Your task to perform on an android device: check battery use Image 0: 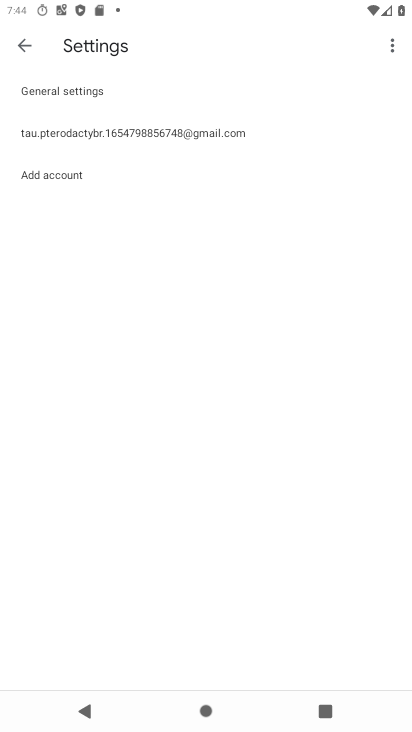
Step 0: press home button
Your task to perform on an android device: check battery use Image 1: 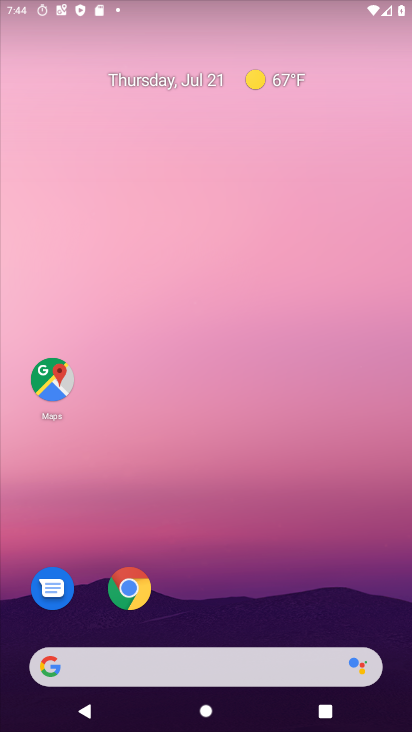
Step 1: drag from (180, 653) to (196, 186)
Your task to perform on an android device: check battery use Image 2: 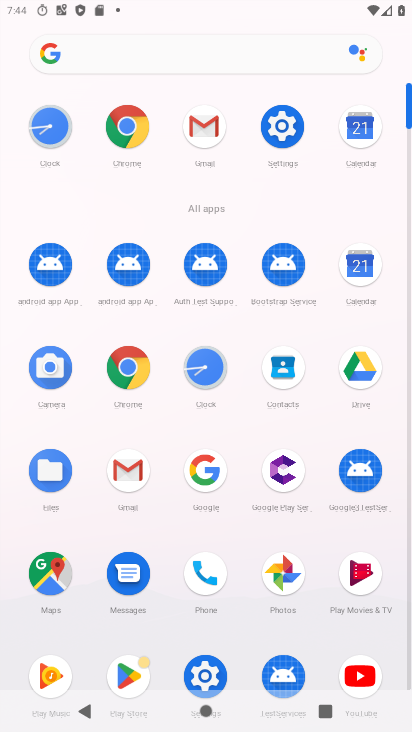
Step 2: click (279, 132)
Your task to perform on an android device: check battery use Image 3: 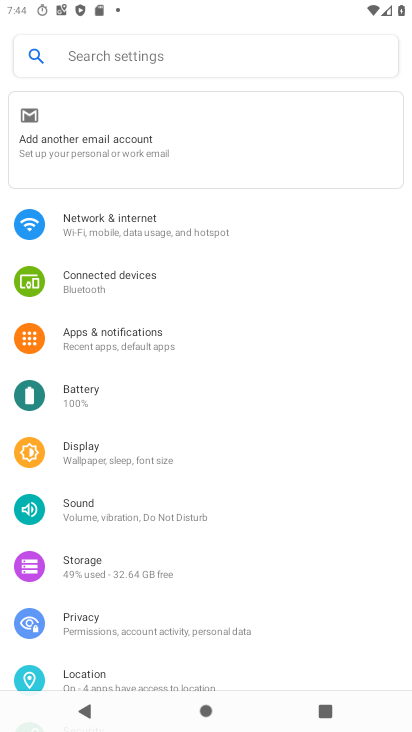
Step 3: click (108, 413)
Your task to perform on an android device: check battery use Image 4: 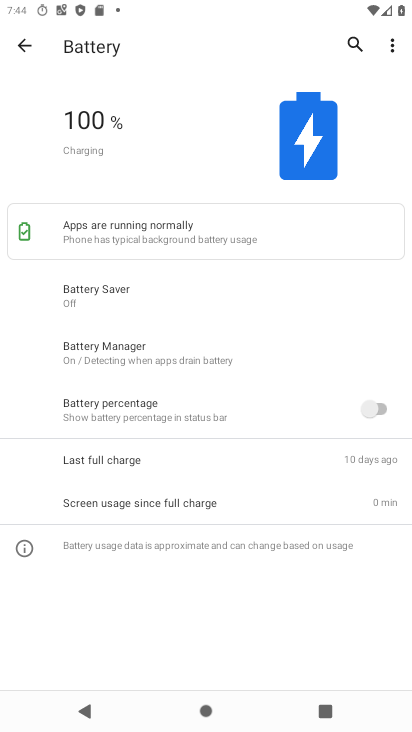
Step 4: click (391, 43)
Your task to perform on an android device: check battery use Image 5: 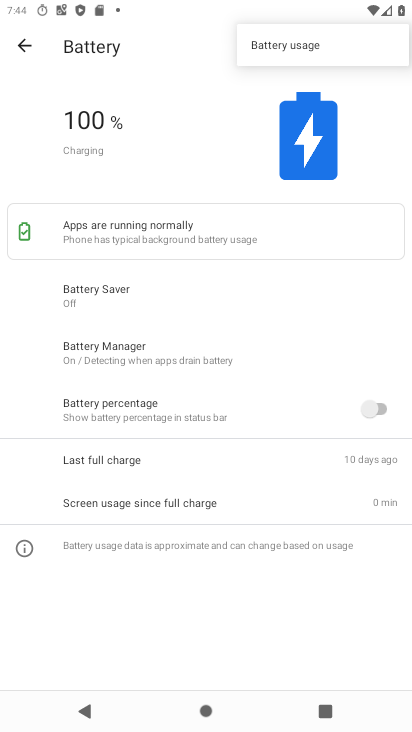
Step 5: click (319, 46)
Your task to perform on an android device: check battery use Image 6: 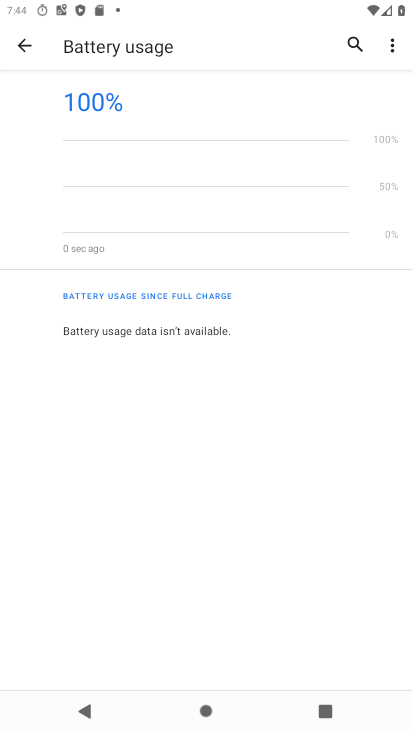
Step 6: task complete